Your task to perform on an android device: turn notification dots off Image 0: 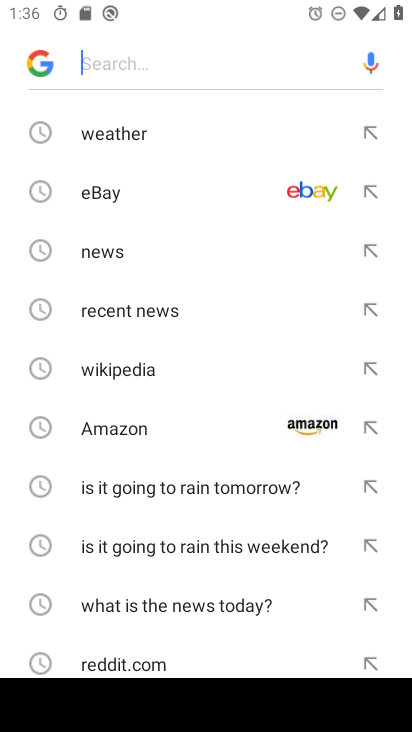
Step 0: press home button
Your task to perform on an android device: turn notification dots off Image 1: 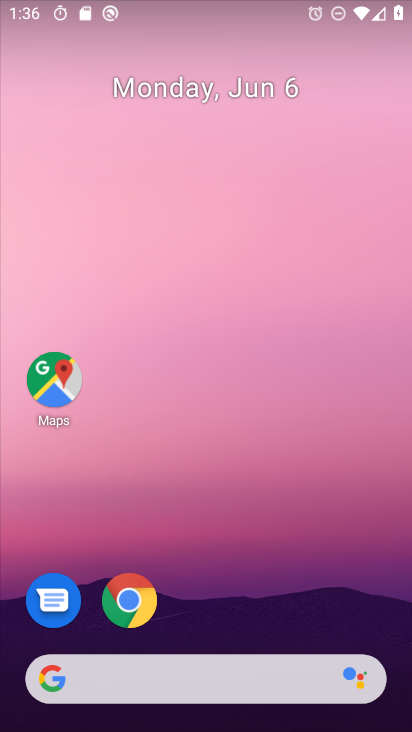
Step 1: drag from (211, 628) to (211, 195)
Your task to perform on an android device: turn notification dots off Image 2: 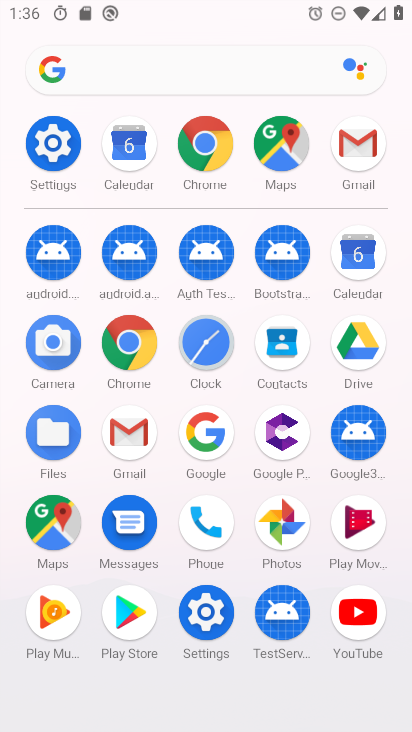
Step 2: click (55, 142)
Your task to perform on an android device: turn notification dots off Image 3: 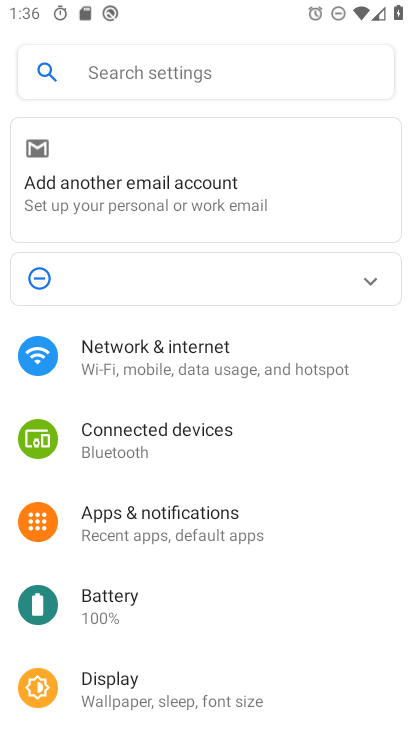
Step 3: click (217, 513)
Your task to perform on an android device: turn notification dots off Image 4: 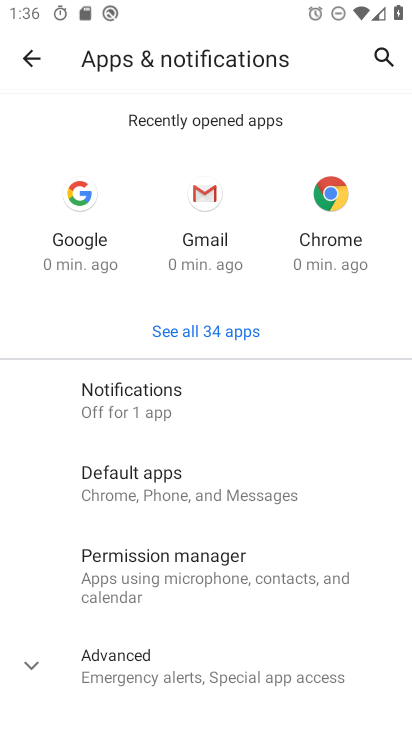
Step 4: click (204, 415)
Your task to perform on an android device: turn notification dots off Image 5: 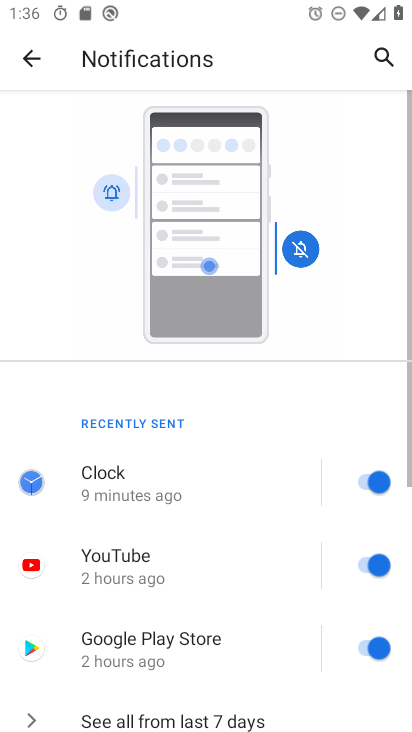
Step 5: drag from (225, 578) to (272, 203)
Your task to perform on an android device: turn notification dots off Image 6: 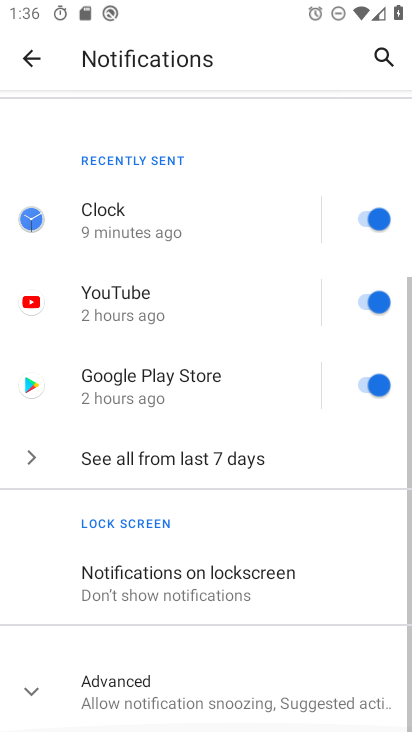
Step 6: drag from (243, 536) to (290, 270)
Your task to perform on an android device: turn notification dots off Image 7: 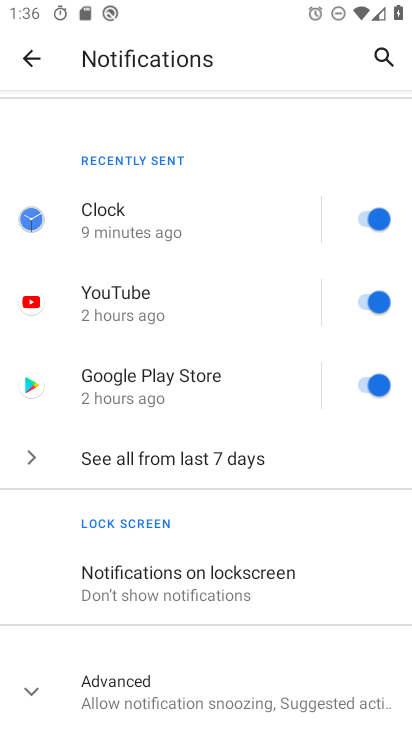
Step 7: click (229, 670)
Your task to perform on an android device: turn notification dots off Image 8: 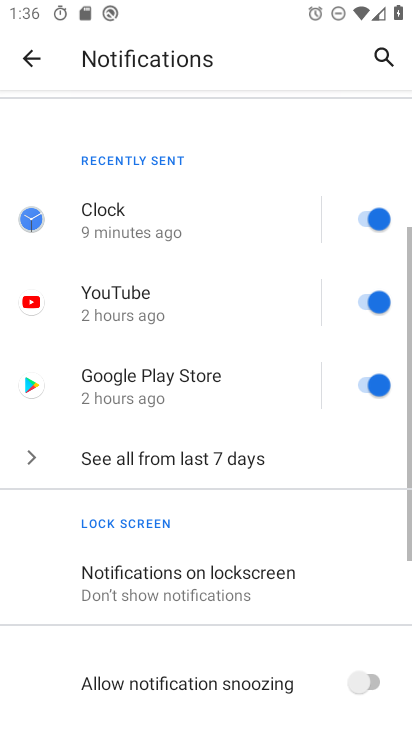
Step 8: task complete